Your task to perform on an android device: Open Amazon Image 0: 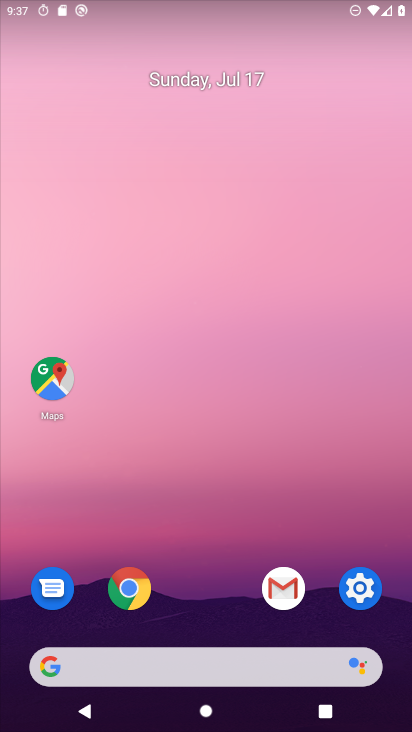
Step 0: drag from (249, 549) to (263, 38)
Your task to perform on an android device: Open Amazon Image 1: 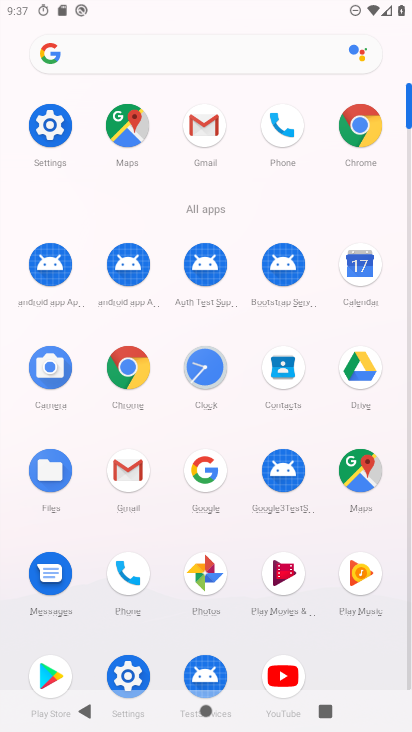
Step 1: click (61, 667)
Your task to perform on an android device: Open Amazon Image 2: 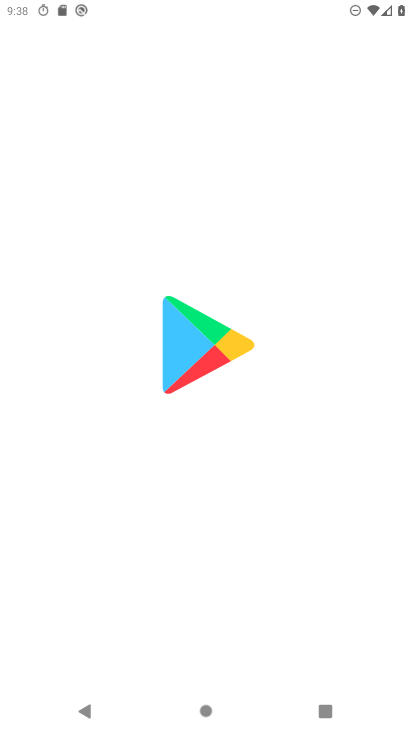
Step 2: press home button
Your task to perform on an android device: Open Amazon Image 3: 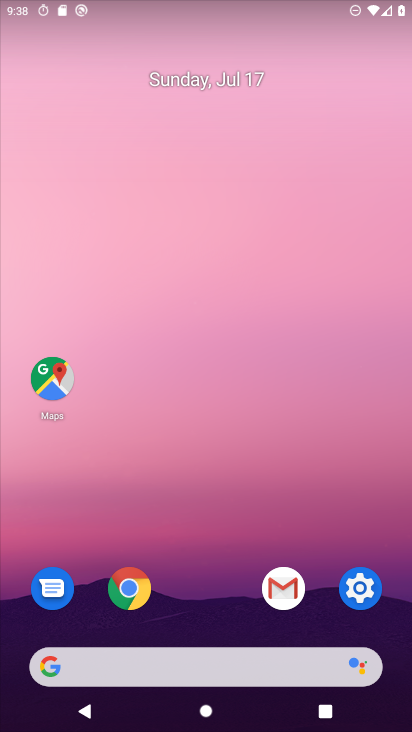
Step 3: click (129, 582)
Your task to perform on an android device: Open Amazon Image 4: 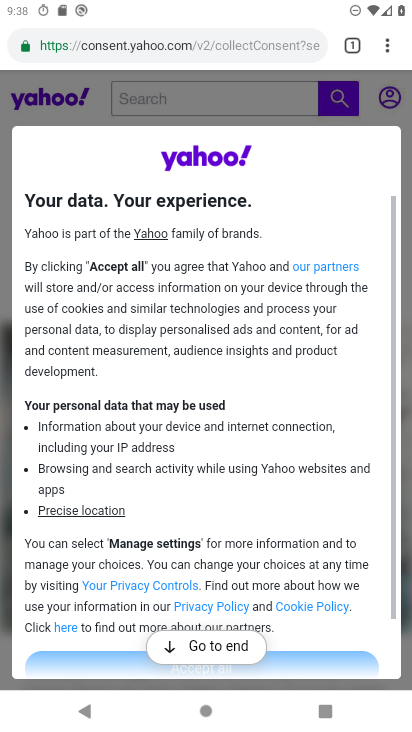
Step 4: click (391, 40)
Your task to perform on an android device: Open Amazon Image 5: 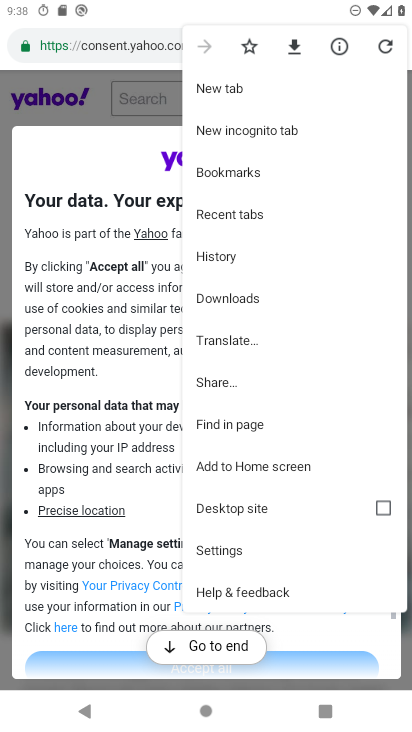
Step 5: click (228, 92)
Your task to perform on an android device: Open Amazon Image 6: 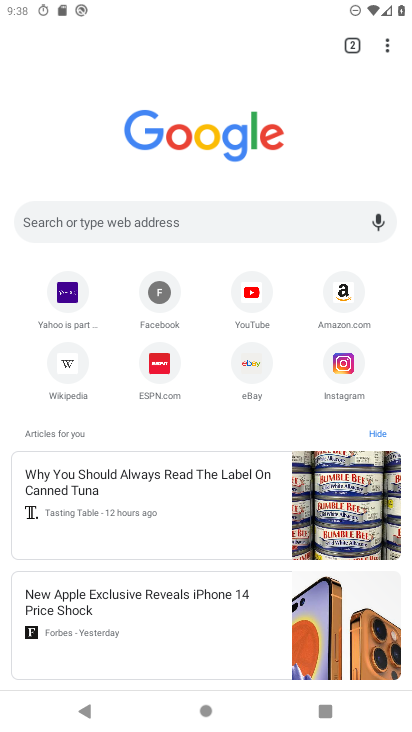
Step 6: click (355, 297)
Your task to perform on an android device: Open Amazon Image 7: 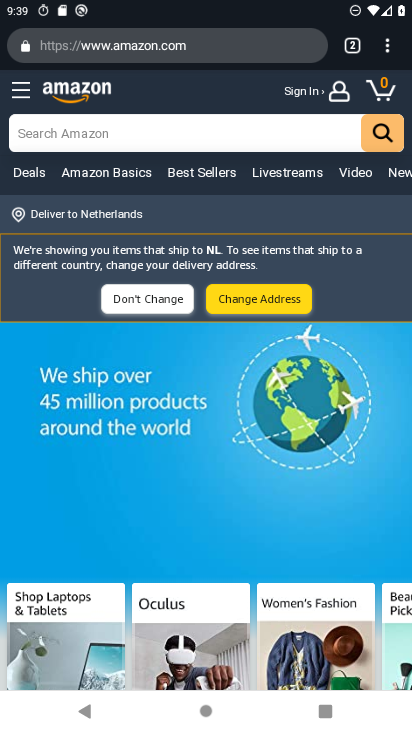
Step 7: task complete